Your task to perform on an android device: Is it going to rain today? Image 0: 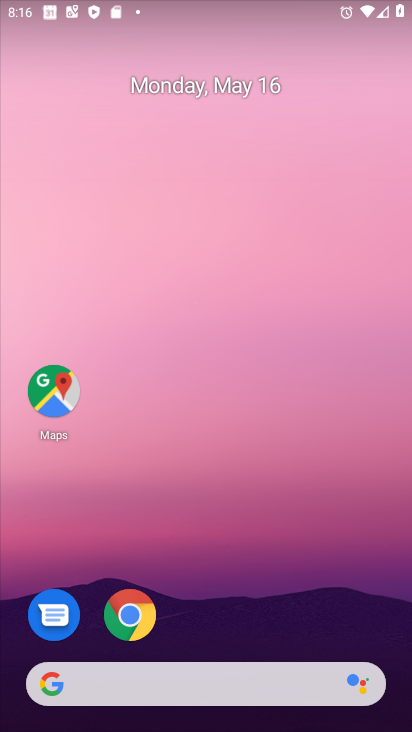
Step 0: click (161, 693)
Your task to perform on an android device: Is it going to rain today? Image 1: 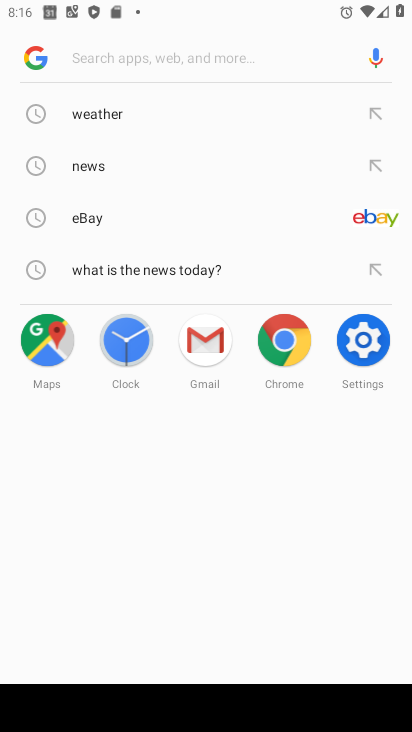
Step 1: click (164, 103)
Your task to perform on an android device: Is it going to rain today? Image 2: 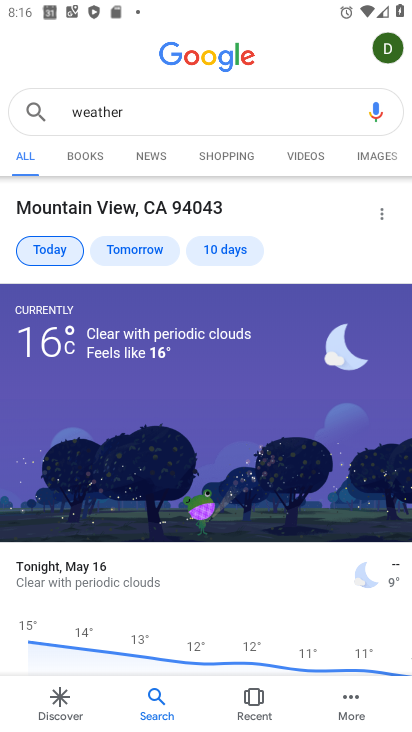
Step 2: task complete